Your task to perform on an android device: turn off improve location accuracy Image 0: 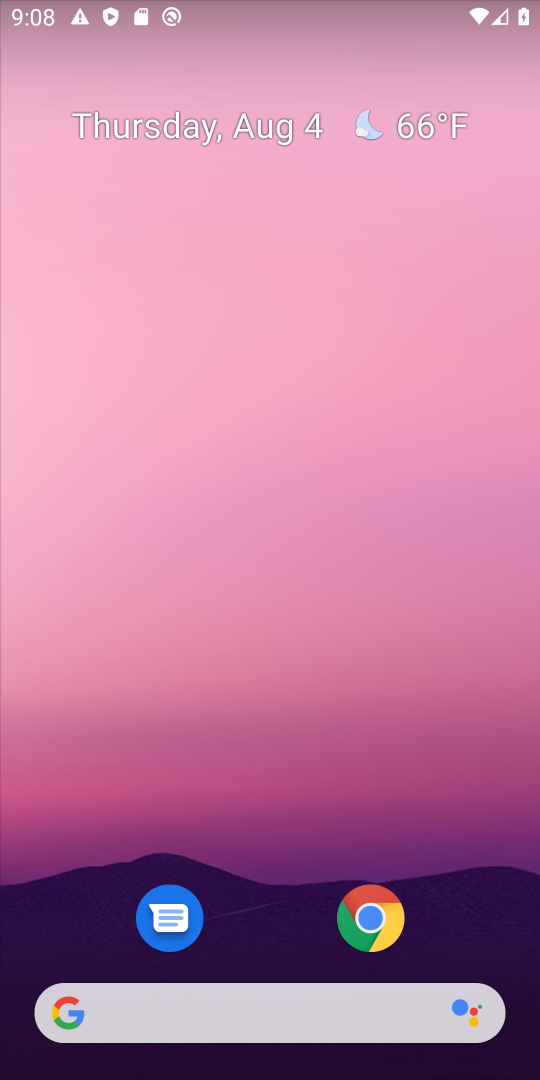
Step 0: press home button
Your task to perform on an android device: turn off improve location accuracy Image 1: 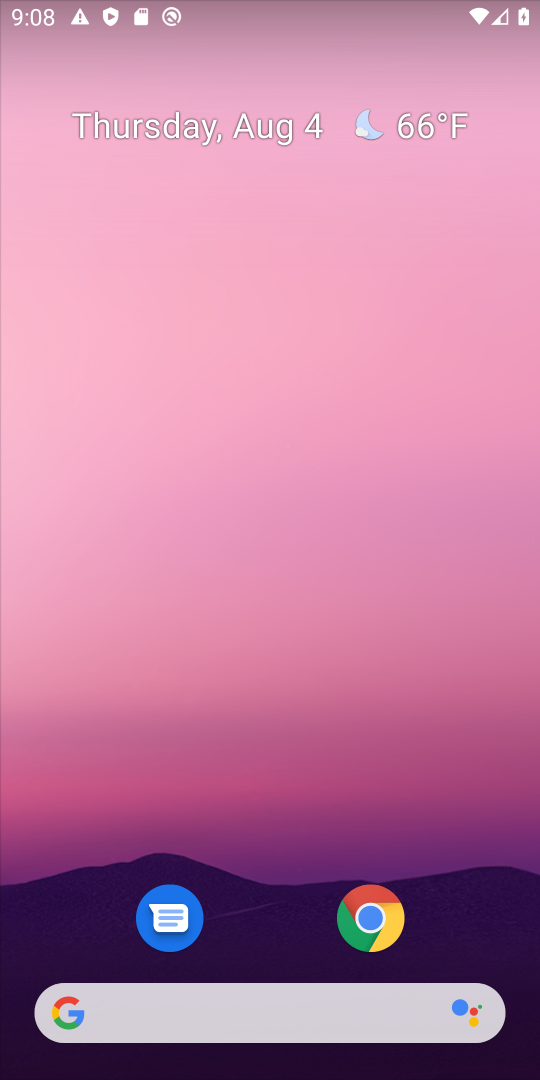
Step 1: click (353, 9)
Your task to perform on an android device: turn off improve location accuracy Image 2: 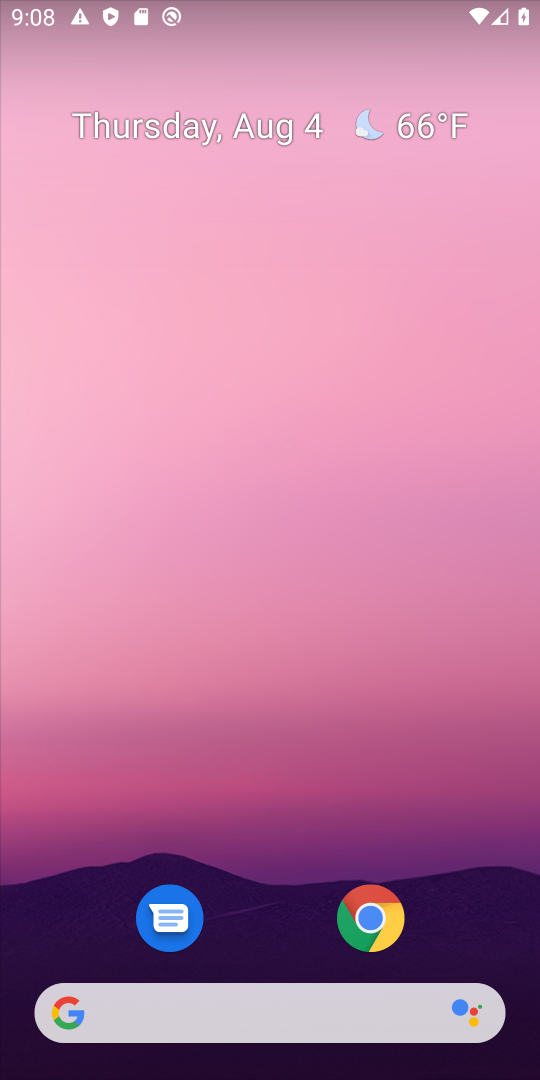
Step 2: drag from (269, 948) to (270, 19)
Your task to perform on an android device: turn off improve location accuracy Image 3: 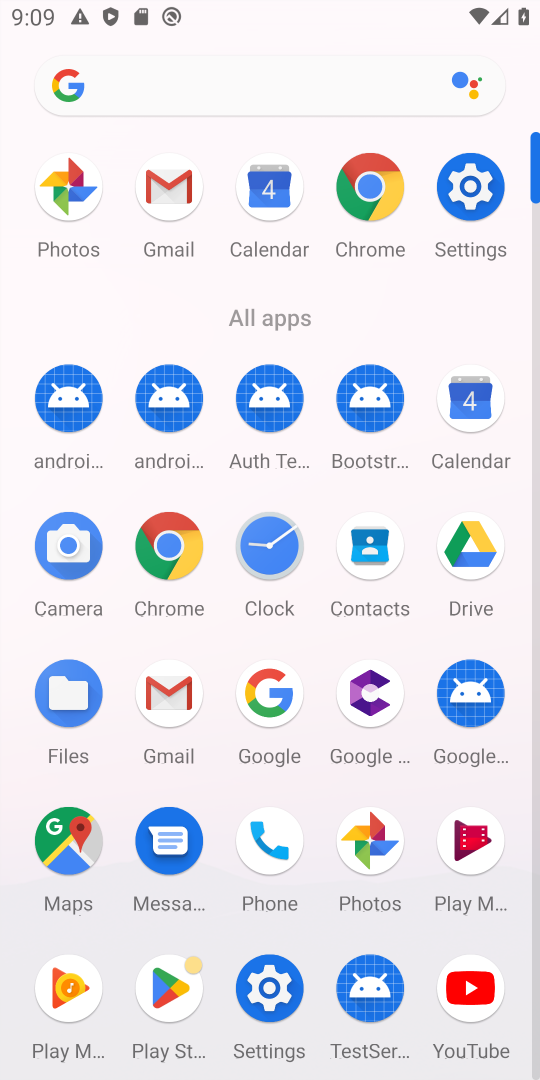
Step 3: click (468, 181)
Your task to perform on an android device: turn off improve location accuracy Image 4: 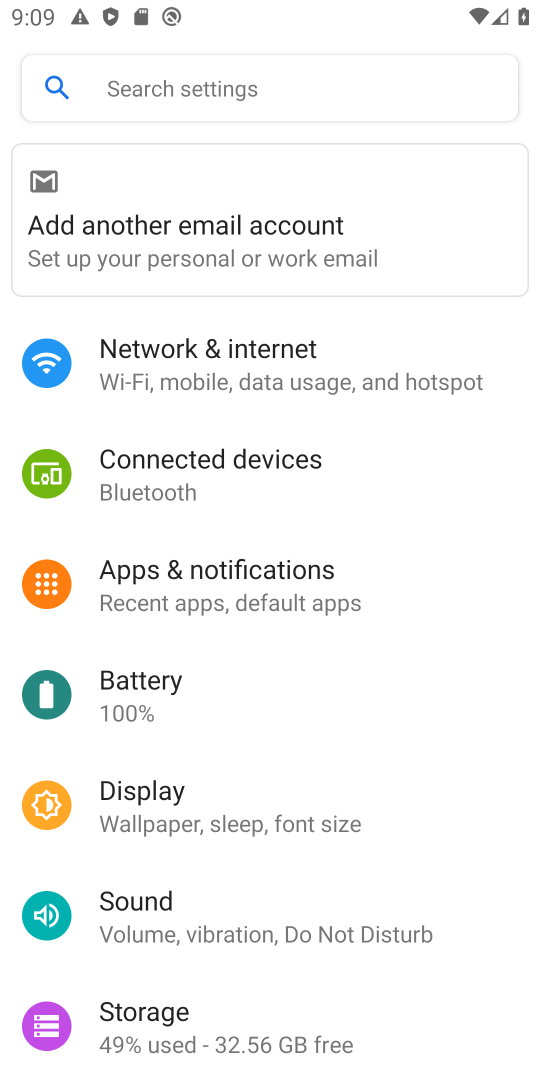
Step 4: drag from (245, 996) to (276, 217)
Your task to perform on an android device: turn off improve location accuracy Image 5: 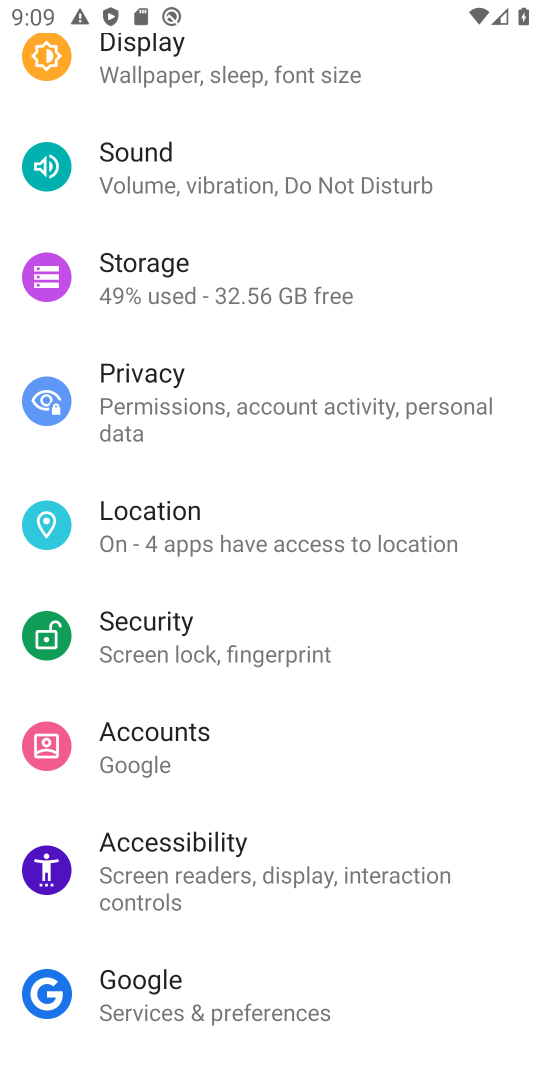
Step 5: click (211, 506)
Your task to perform on an android device: turn off improve location accuracy Image 6: 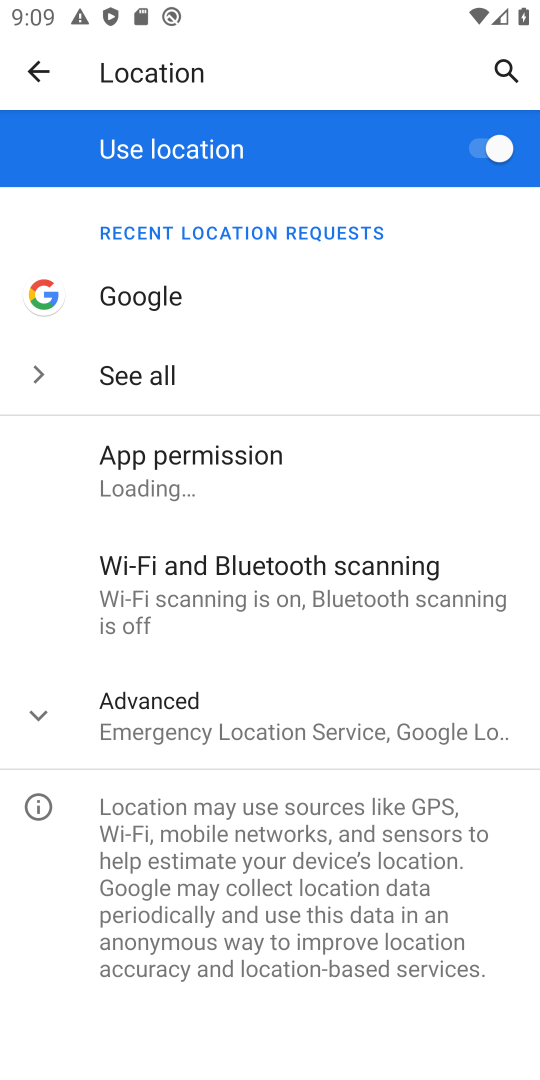
Step 6: click (31, 704)
Your task to perform on an android device: turn off improve location accuracy Image 7: 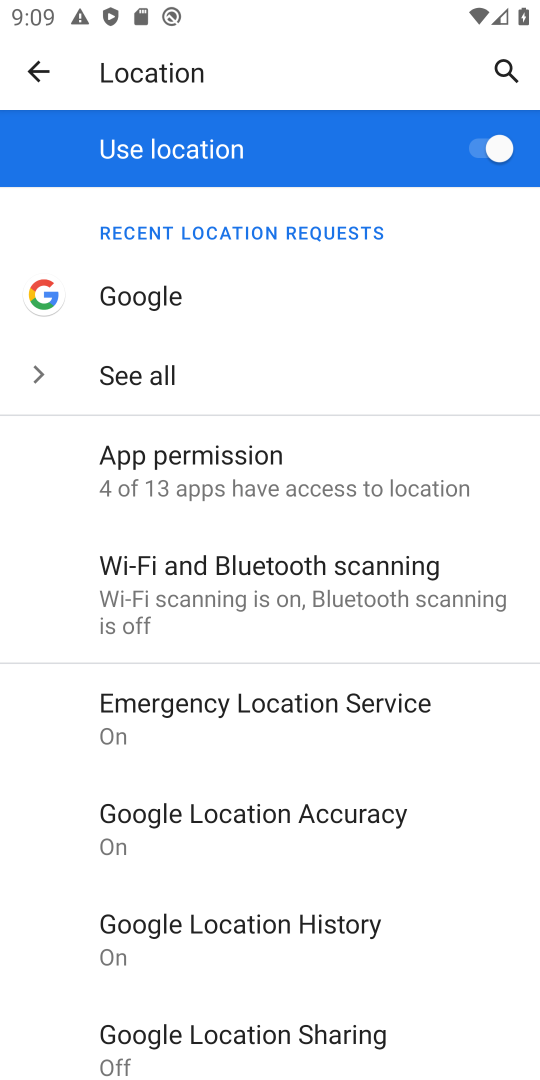
Step 7: click (183, 832)
Your task to perform on an android device: turn off improve location accuracy Image 8: 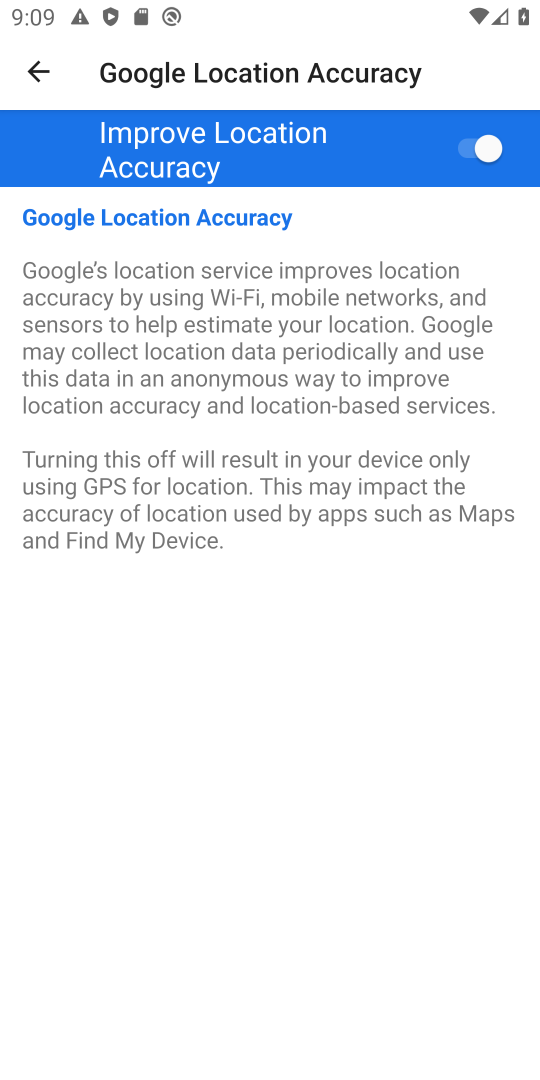
Step 8: click (464, 148)
Your task to perform on an android device: turn off improve location accuracy Image 9: 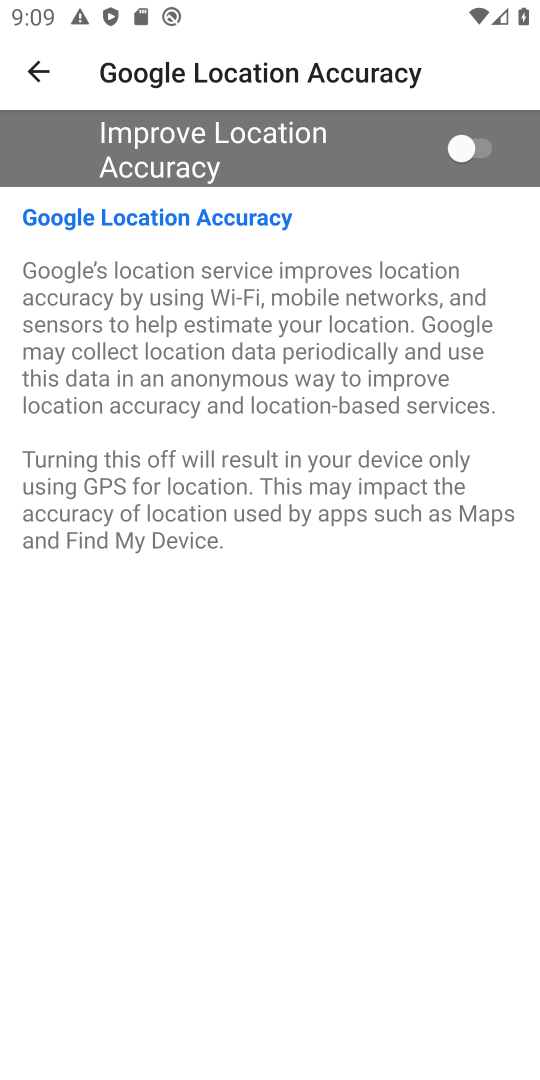
Step 9: task complete